Your task to perform on an android device: Toggle the flashlight Image 0: 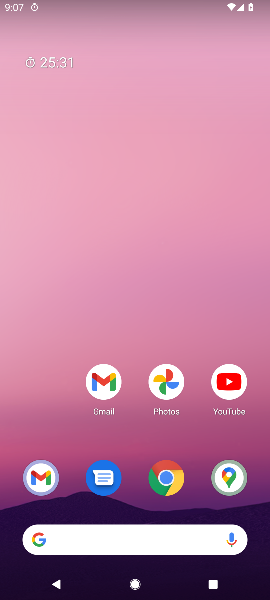
Step 0: drag from (110, 2) to (100, 473)
Your task to perform on an android device: Toggle the flashlight Image 1: 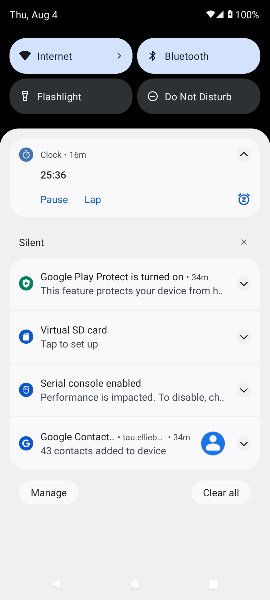
Step 1: click (72, 100)
Your task to perform on an android device: Toggle the flashlight Image 2: 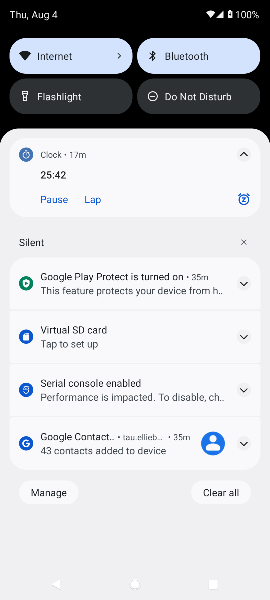
Step 2: click (25, 94)
Your task to perform on an android device: Toggle the flashlight Image 3: 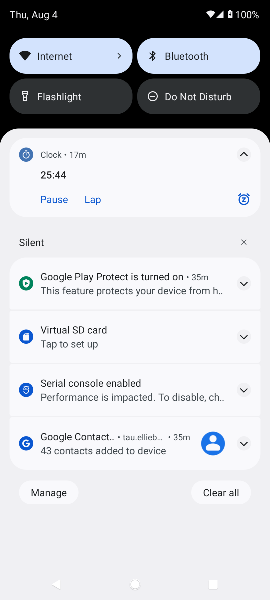
Step 3: click (49, 94)
Your task to perform on an android device: Toggle the flashlight Image 4: 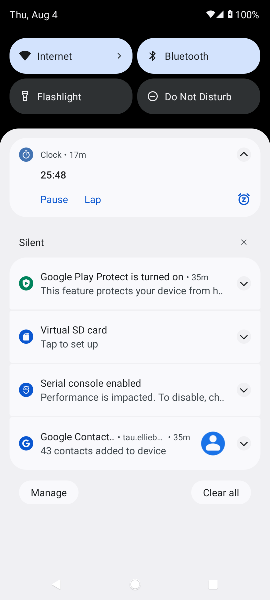
Step 4: click (73, 100)
Your task to perform on an android device: Toggle the flashlight Image 5: 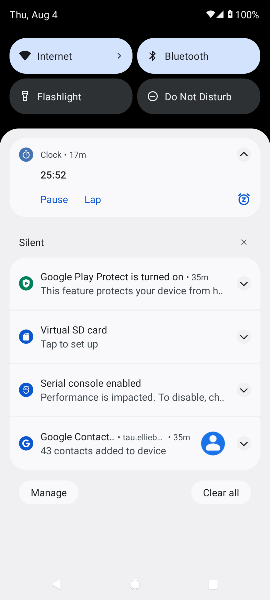
Step 5: task complete